Your task to perform on an android device: Clear the shopping cart on costco.com. Add "razer blade" to the cart on costco.com Image 0: 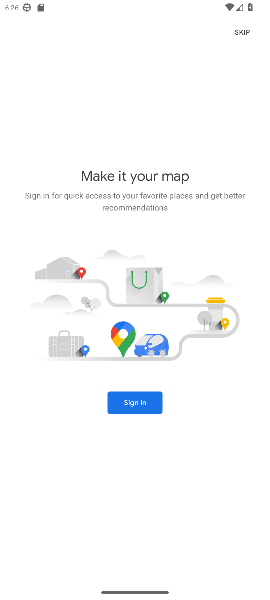
Step 0: press home button
Your task to perform on an android device: Clear the shopping cart on costco.com. Add "razer blade" to the cart on costco.com Image 1: 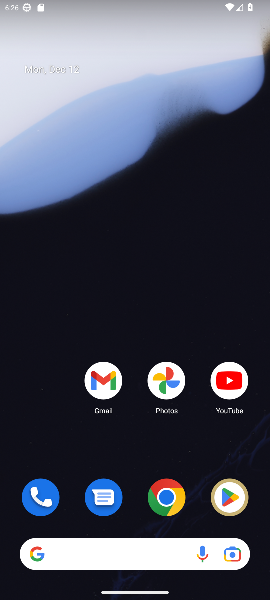
Step 1: drag from (55, 445) to (61, 88)
Your task to perform on an android device: Clear the shopping cart on costco.com. Add "razer blade" to the cart on costco.com Image 2: 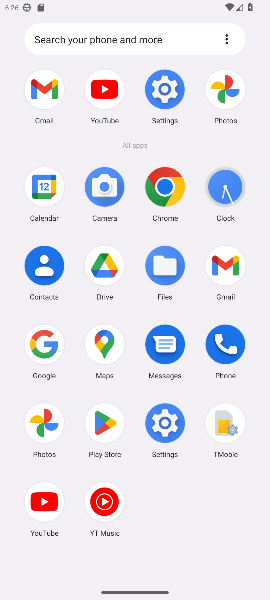
Step 2: click (28, 342)
Your task to perform on an android device: Clear the shopping cart on costco.com. Add "razer blade" to the cart on costco.com Image 3: 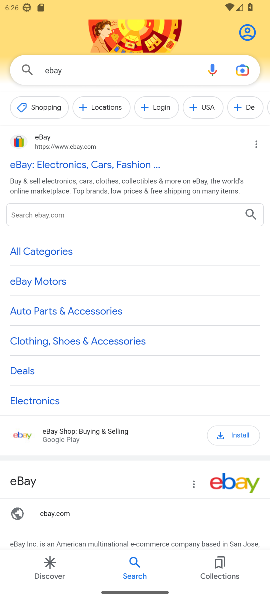
Step 3: click (107, 69)
Your task to perform on an android device: Clear the shopping cart on costco.com. Add "razer blade" to the cart on costco.com Image 4: 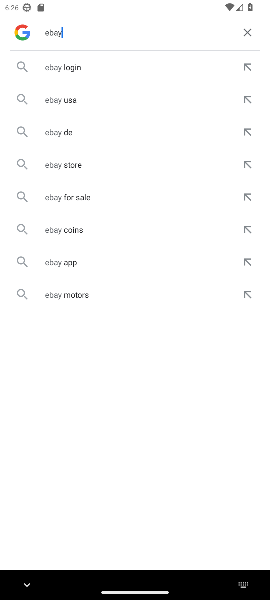
Step 4: click (242, 34)
Your task to perform on an android device: Clear the shopping cart on costco.com. Add "razer blade" to the cart on costco.com Image 5: 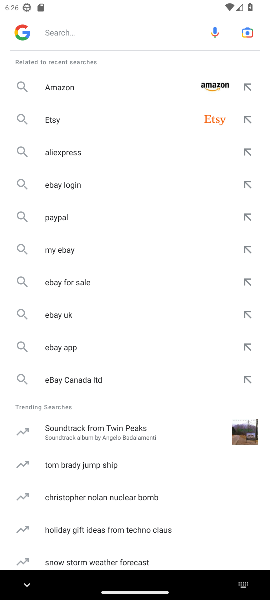
Step 5: type "costco.com"
Your task to perform on an android device: Clear the shopping cart on costco.com. Add "razer blade" to the cart on costco.com Image 6: 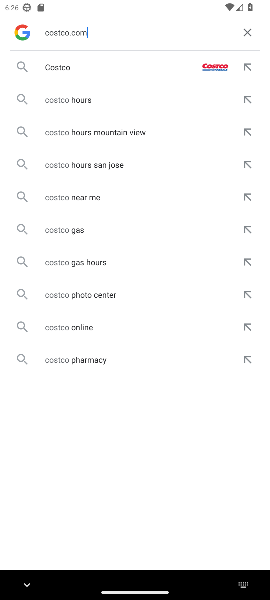
Step 6: press enter
Your task to perform on an android device: Clear the shopping cart on costco.com. Add "razer blade" to the cart on costco.com Image 7: 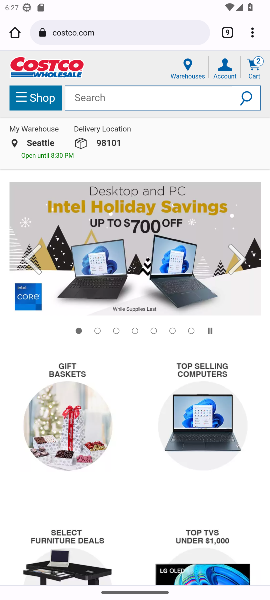
Step 7: click (255, 63)
Your task to perform on an android device: Clear the shopping cart on costco.com. Add "razer blade" to the cart on costco.com Image 8: 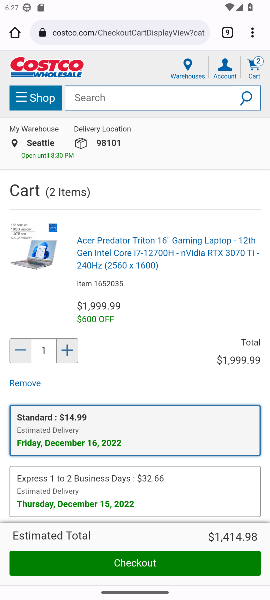
Step 8: click (63, 348)
Your task to perform on an android device: Clear the shopping cart on costco.com. Add "razer blade" to the cart on costco.com Image 9: 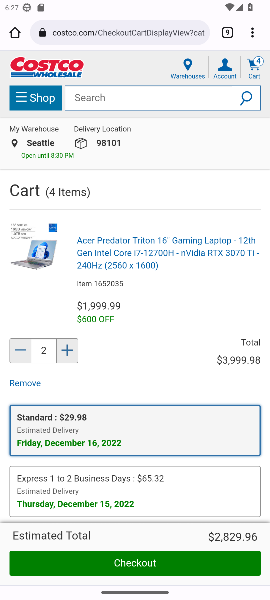
Step 9: click (61, 343)
Your task to perform on an android device: Clear the shopping cart on costco.com. Add "razer blade" to the cart on costco.com Image 10: 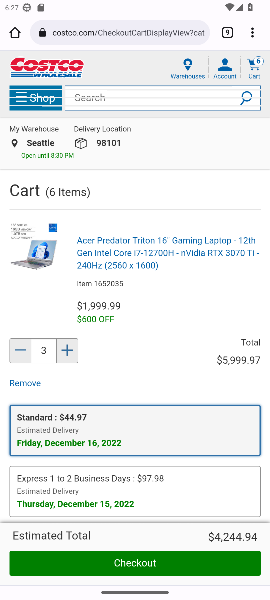
Step 10: click (16, 384)
Your task to perform on an android device: Clear the shopping cart on costco.com. Add "razer blade" to the cart on costco.com Image 11: 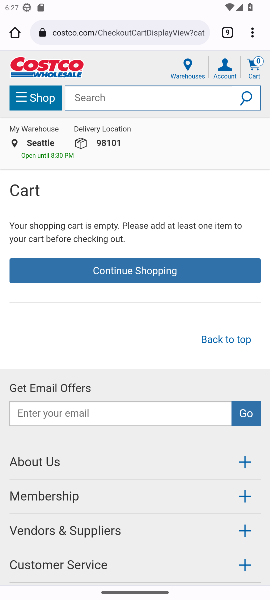
Step 11: task complete